Your task to perform on an android device: Clear all items from cart on target. Search for energizer triple a on target, select the first entry, and add it to the cart. Image 0: 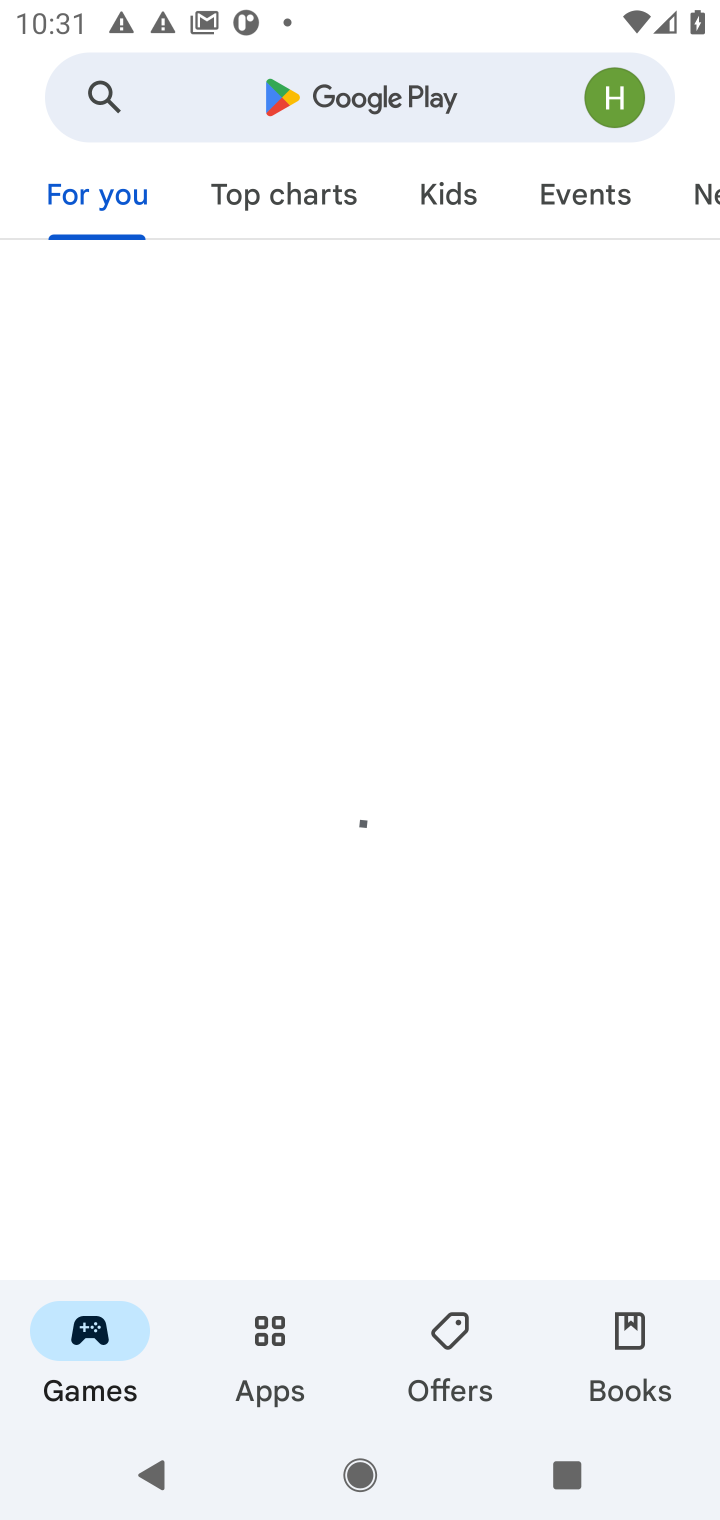
Step 0: press home button
Your task to perform on an android device: Clear all items from cart on target. Search for energizer triple a on target, select the first entry, and add it to the cart. Image 1: 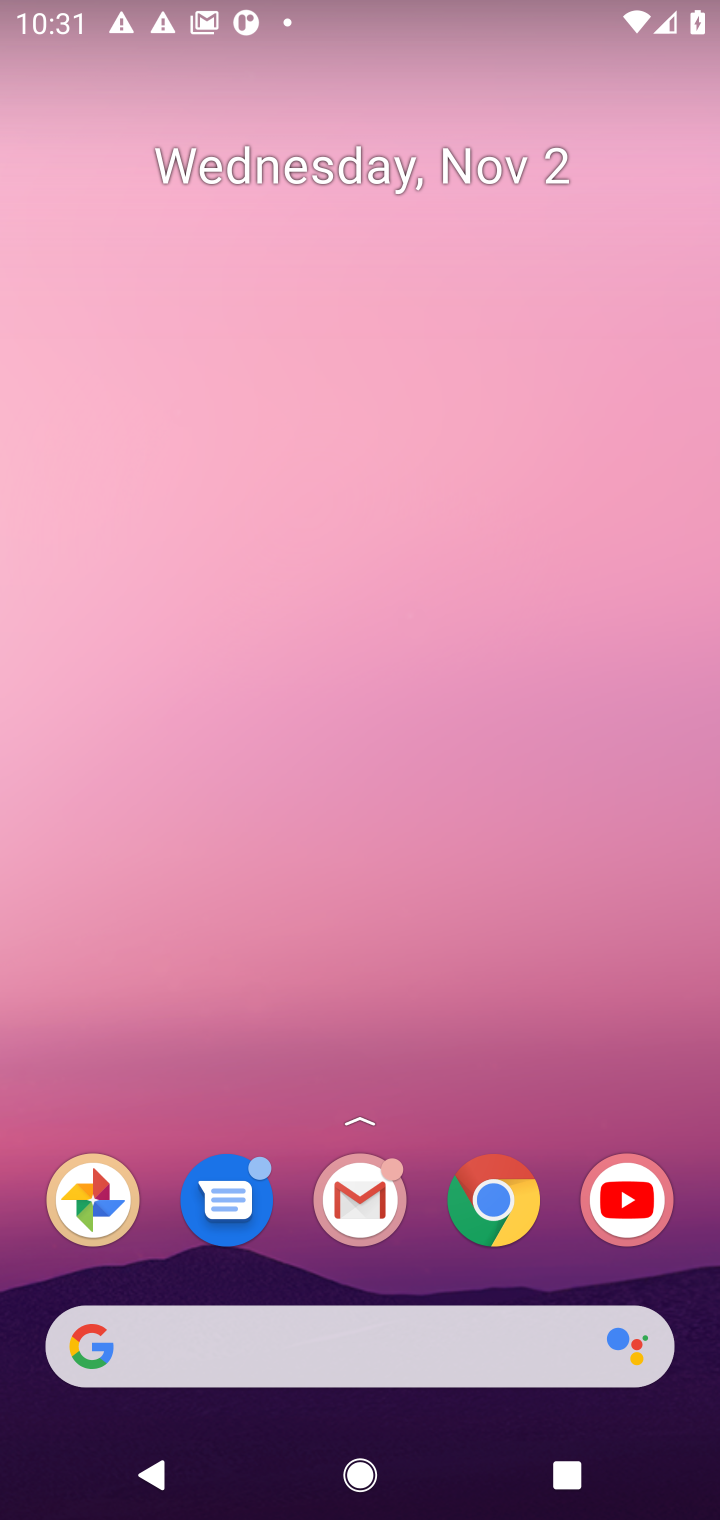
Step 1: click (499, 1193)
Your task to perform on an android device: Clear all items from cart on target. Search for energizer triple a on target, select the first entry, and add it to the cart. Image 2: 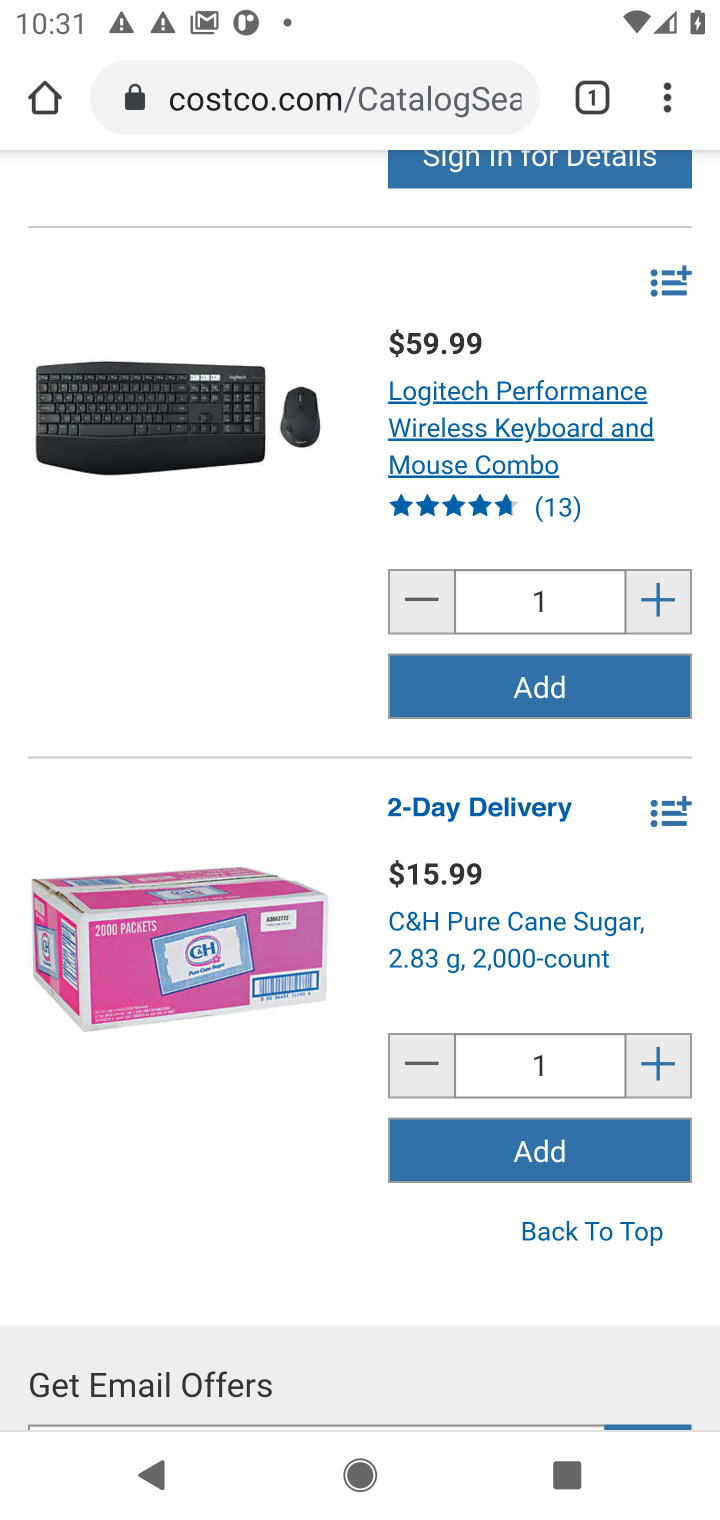
Step 2: click (383, 110)
Your task to perform on an android device: Clear all items from cart on target. Search for energizer triple a on target, select the first entry, and add it to the cart. Image 3: 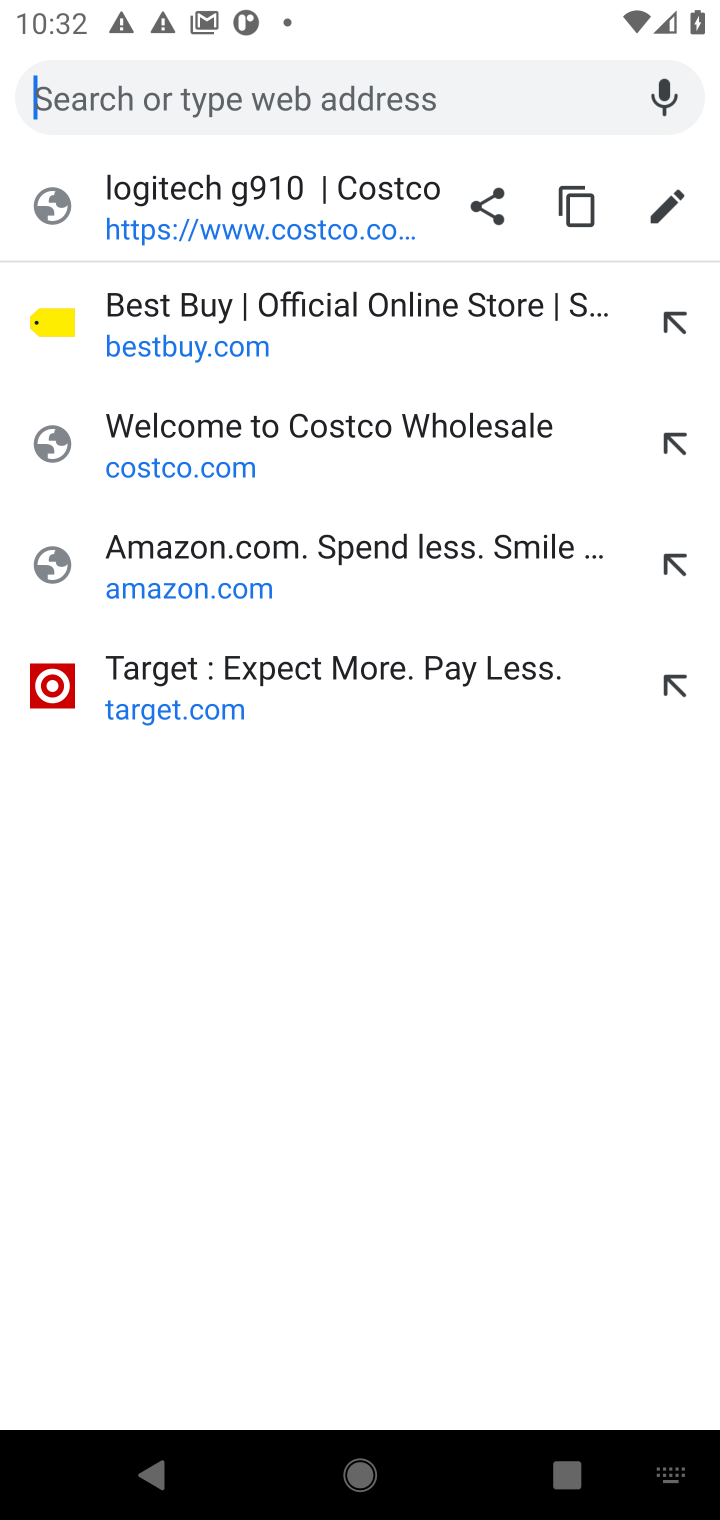
Step 3: click (310, 665)
Your task to perform on an android device: Clear all items from cart on target. Search for energizer triple a on target, select the first entry, and add it to the cart. Image 4: 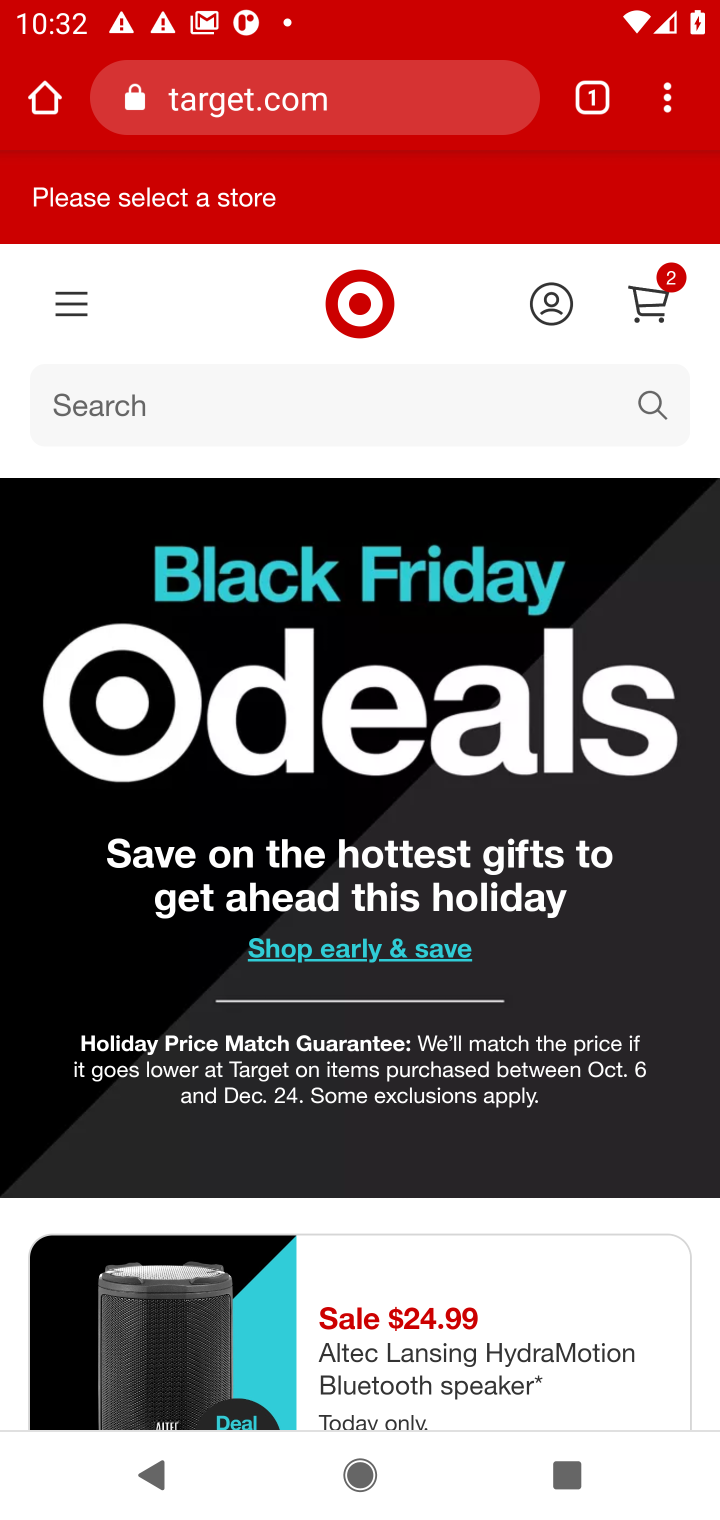
Step 4: click (649, 309)
Your task to perform on an android device: Clear all items from cart on target. Search for energizer triple a on target, select the first entry, and add it to the cart. Image 5: 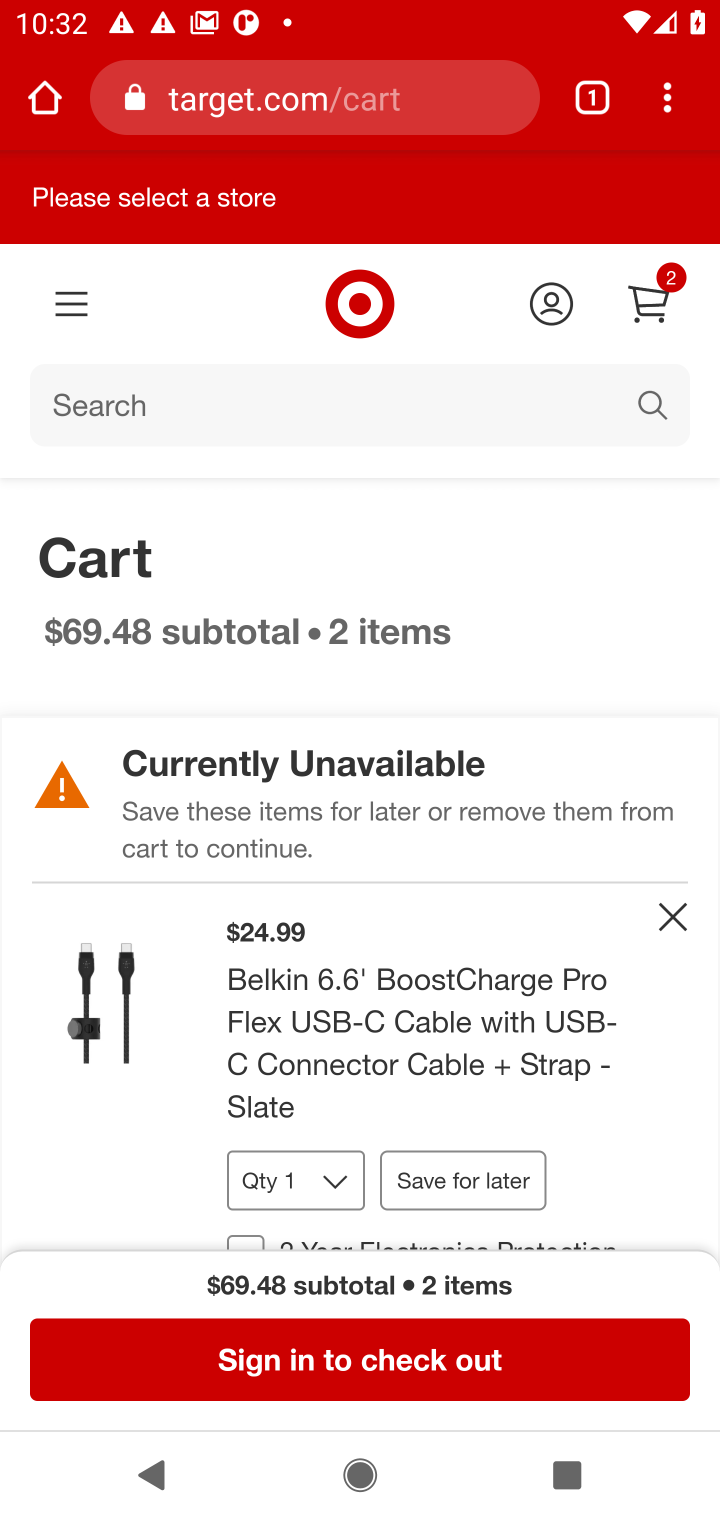
Step 5: drag from (550, 1027) to (605, 413)
Your task to perform on an android device: Clear all items from cart on target. Search for energizer triple a on target, select the first entry, and add it to the cart. Image 6: 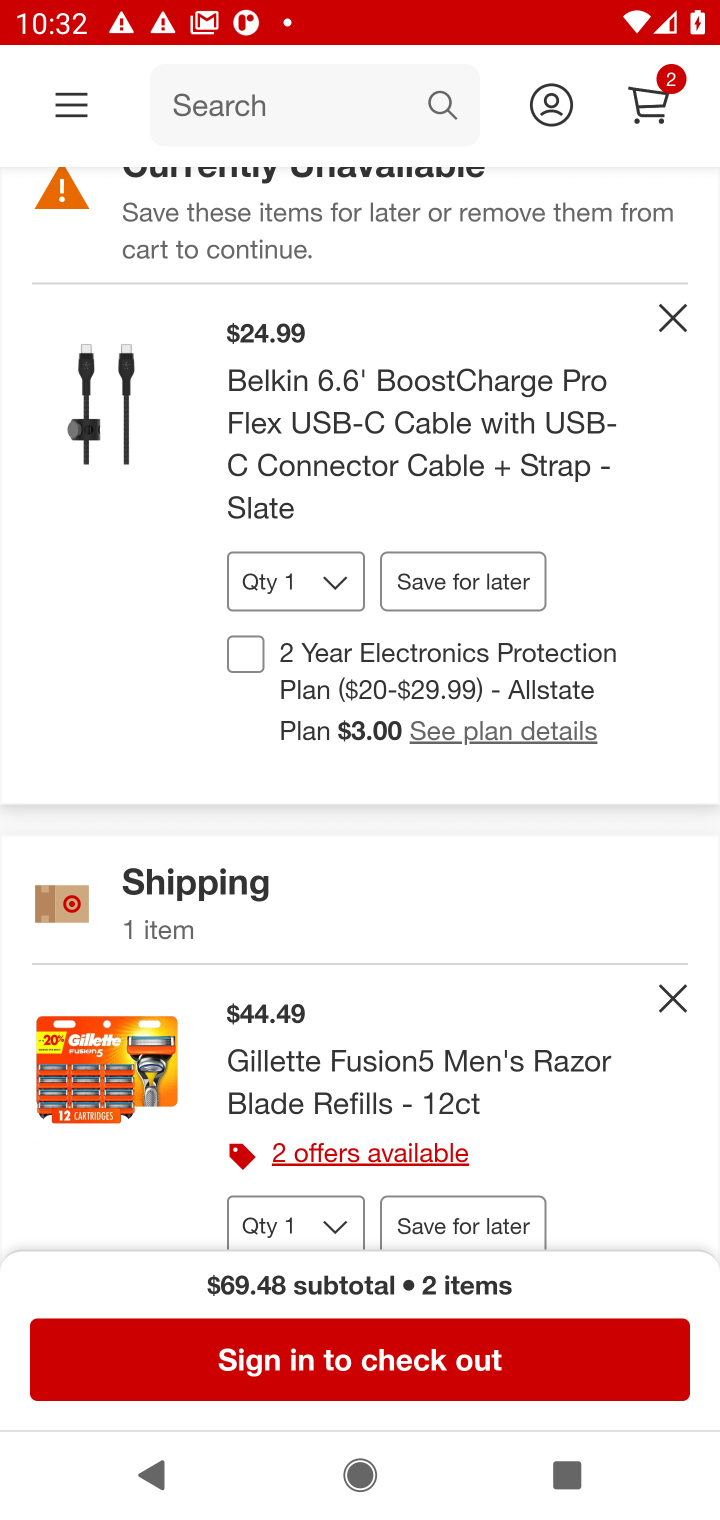
Step 6: click (662, 319)
Your task to perform on an android device: Clear all items from cart on target. Search for energizer triple a on target, select the first entry, and add it to the cart. Image 7: 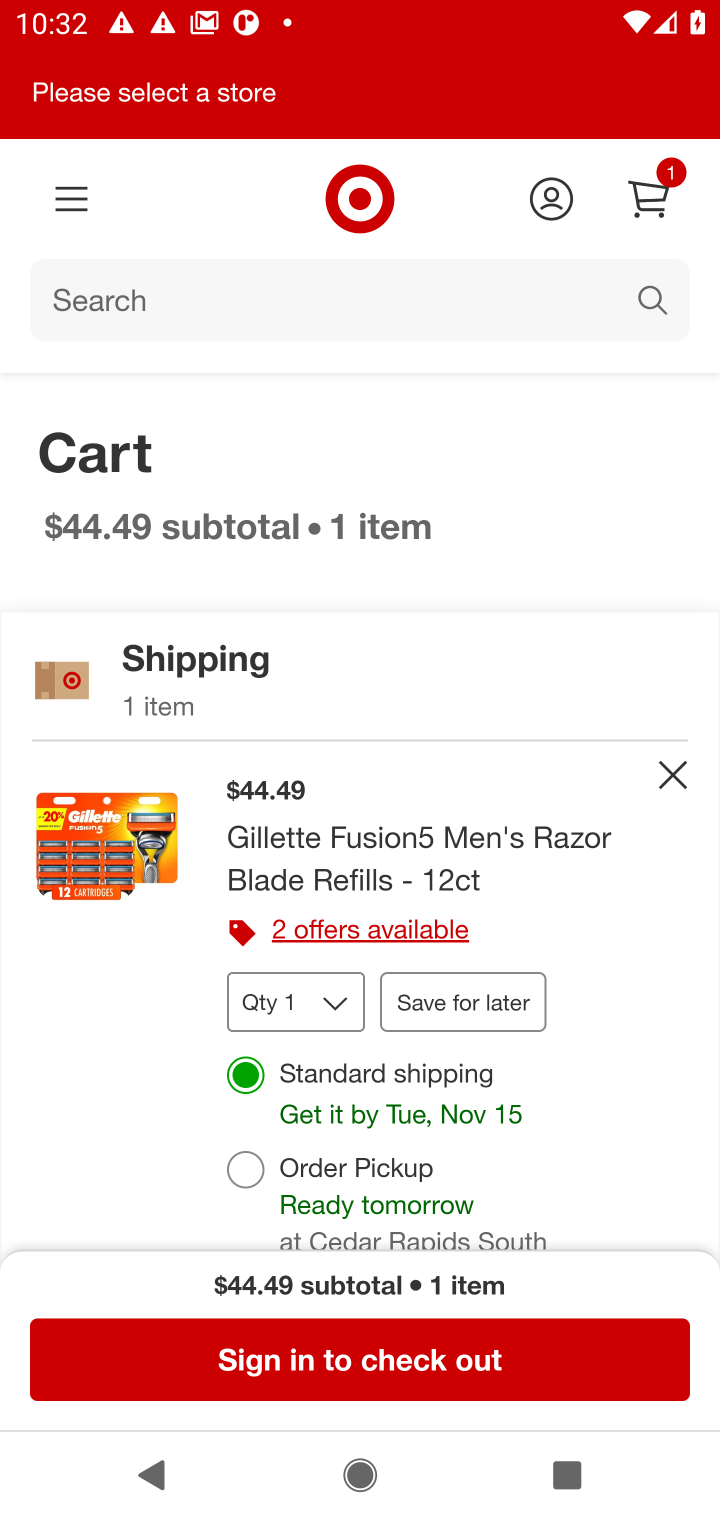
Step 7: click (668, 775)
Your task to perform on an android device: Clear all items from cart on target. Search for energizer triple a on target, select the first entry, and add it to the cart. Image 8: 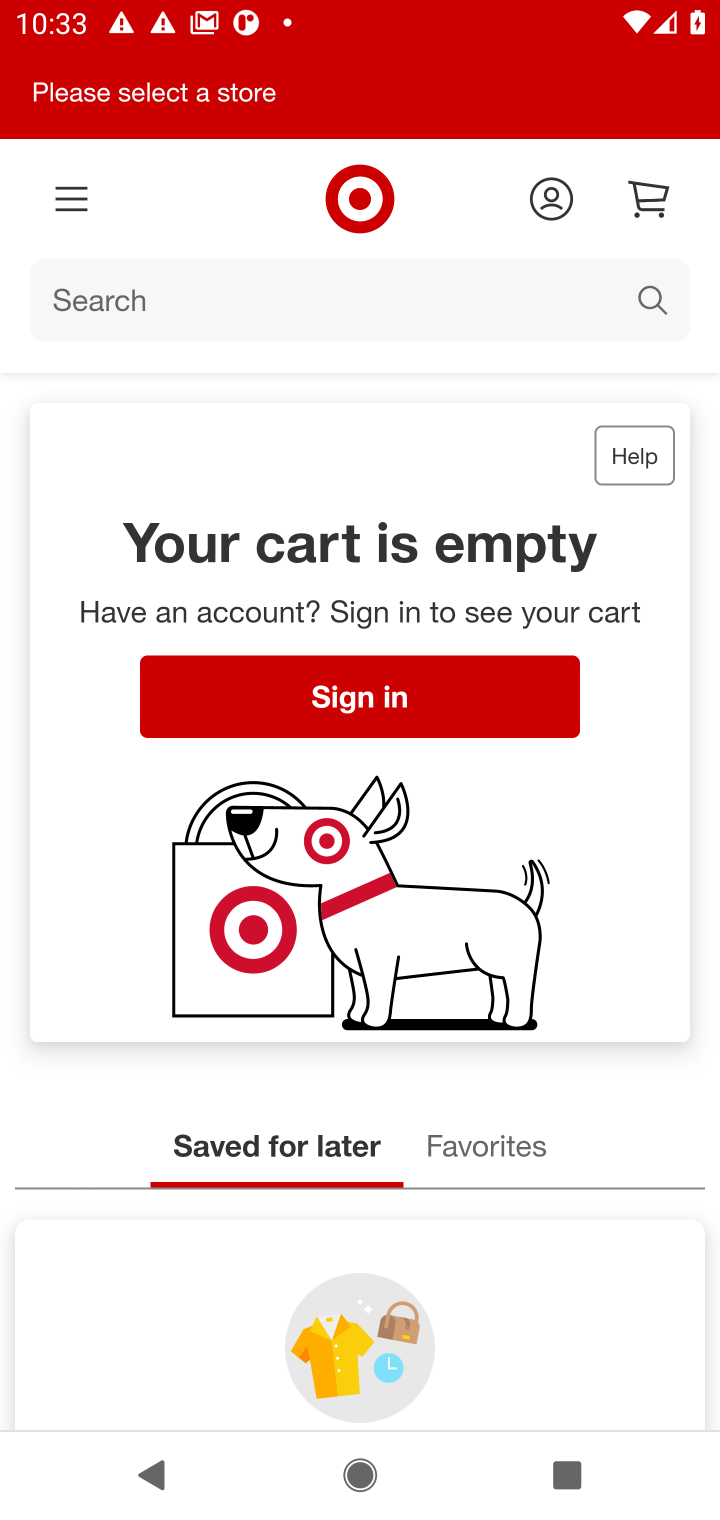
Step 8: click (653, 296)
Your task to perform on an android device: Clear all items from cart on target. Search for energizer triple a on target, select the first entry, and add it to the cart. Image 9: 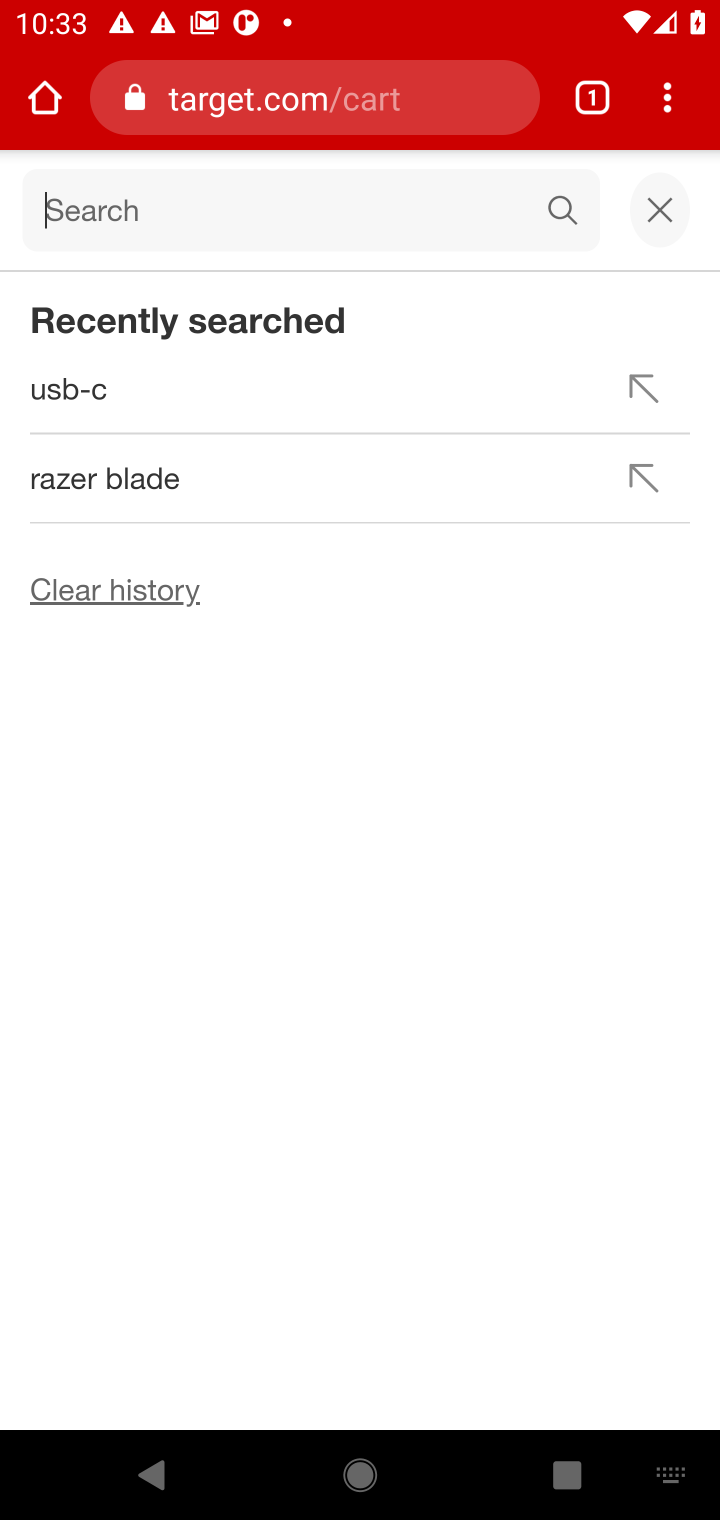
Step 9: type "energizer triple a "
Your task to perform on an android device: Clear all items from cart on target. Search for energizer triple a on target, select the first entry, and add it to the cart. Image 10: 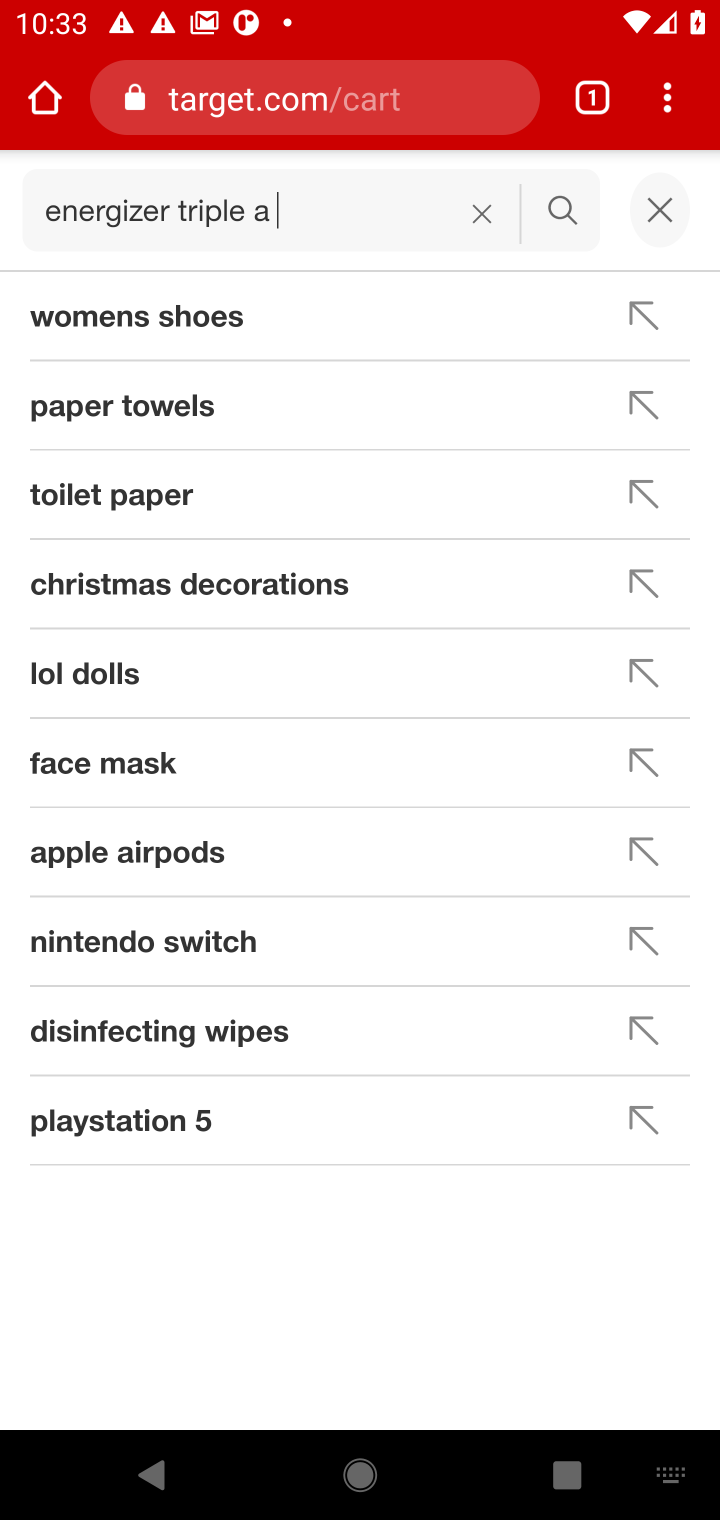
Step 10: press enter
Your task to perform on an android device: Clear all items from cart on target. Search for energizer triple a on target, select the first entry, and add it to the cart. Image 11: 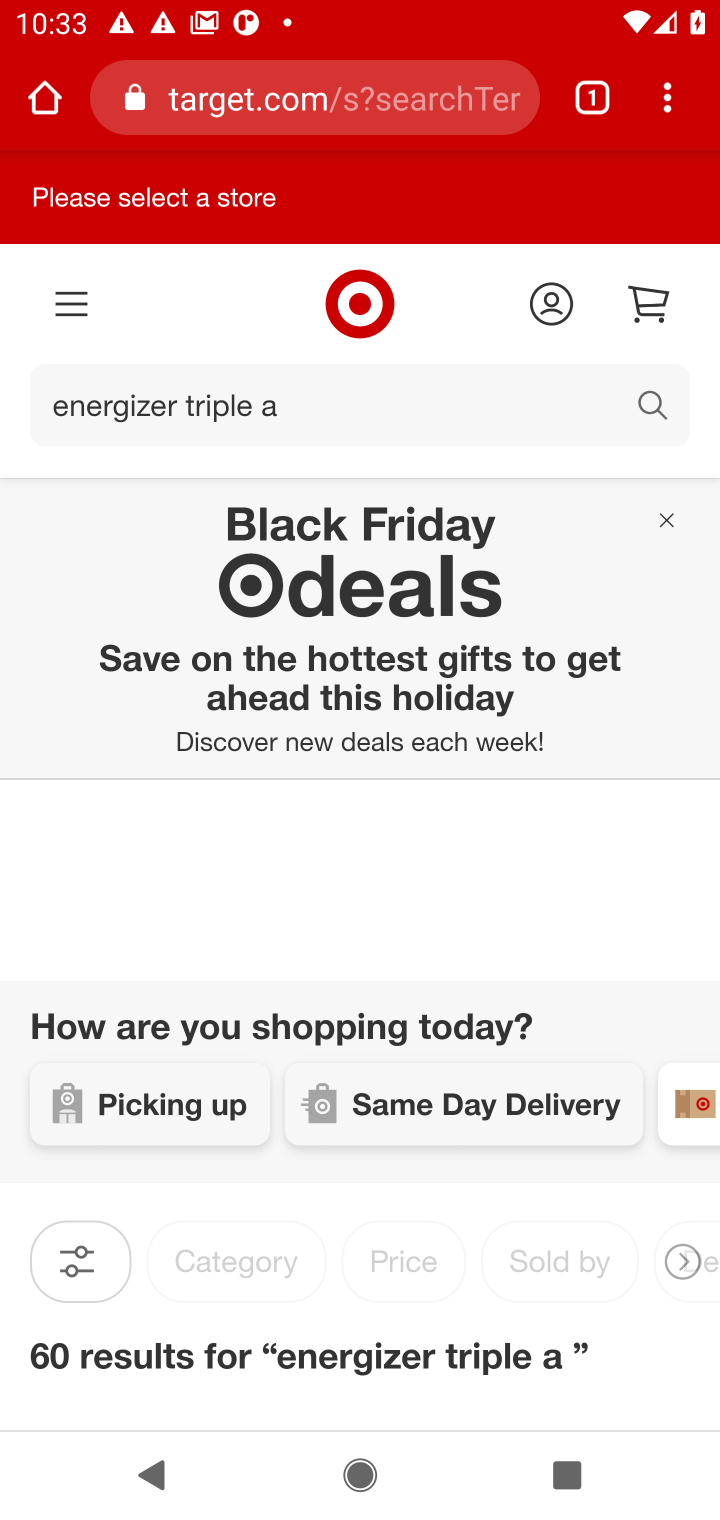
Step 11: drag from (454, 1149) to (527, 515)
Your task to perform on an android device: Clear all items from cart on target. Search for energizer triple a on target, select the first entry, and add it to the cart. Image 12: 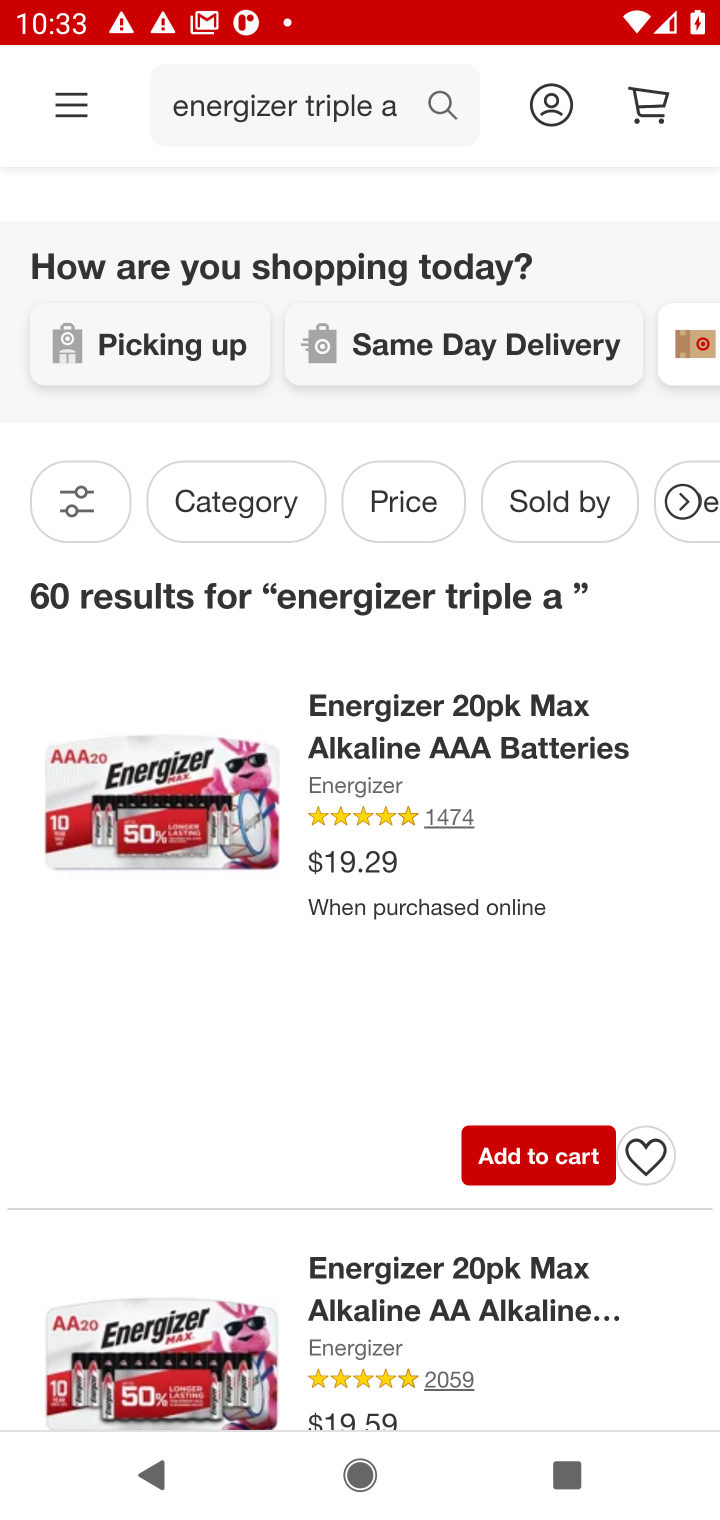
Step 12: drag from (456, 871) to (481, 516)
Your task to perform on an android device: Clear all items from cart on target. Search for energizer triple a on target, select the first entry, and add it to the cart. Image 13: 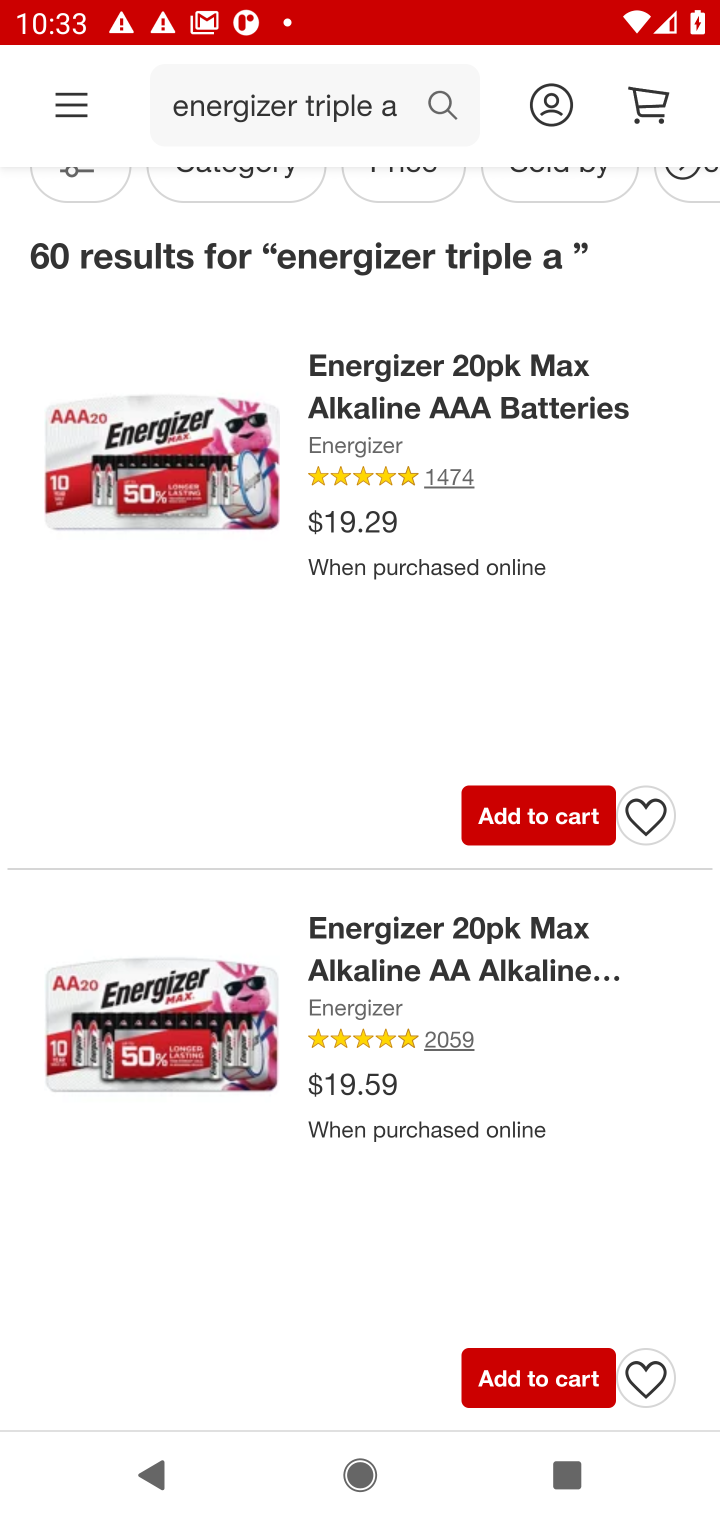
Step 13: click (163, 445)
Your task to perform on an android device: Clear all items from cart on target. Search for energizer triple a on target, select the first entry, and add it to the cart. Image 14: 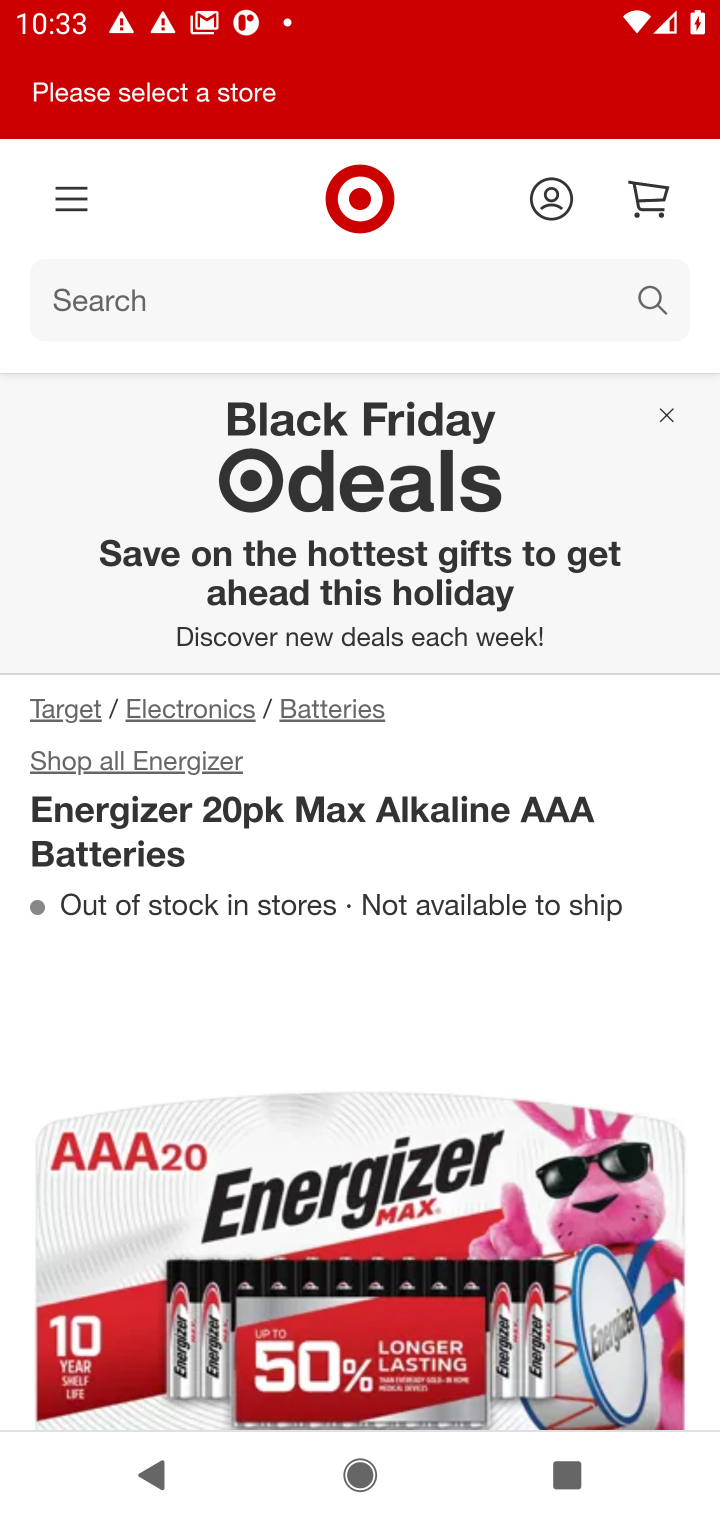
Step 14: drag from (512, 1228) to (465, 542)
Your task to perform on an android device: Clear all items from cart on target. Search for energizer triple a on target, select the first entry, and add it to the cart. Image 15: 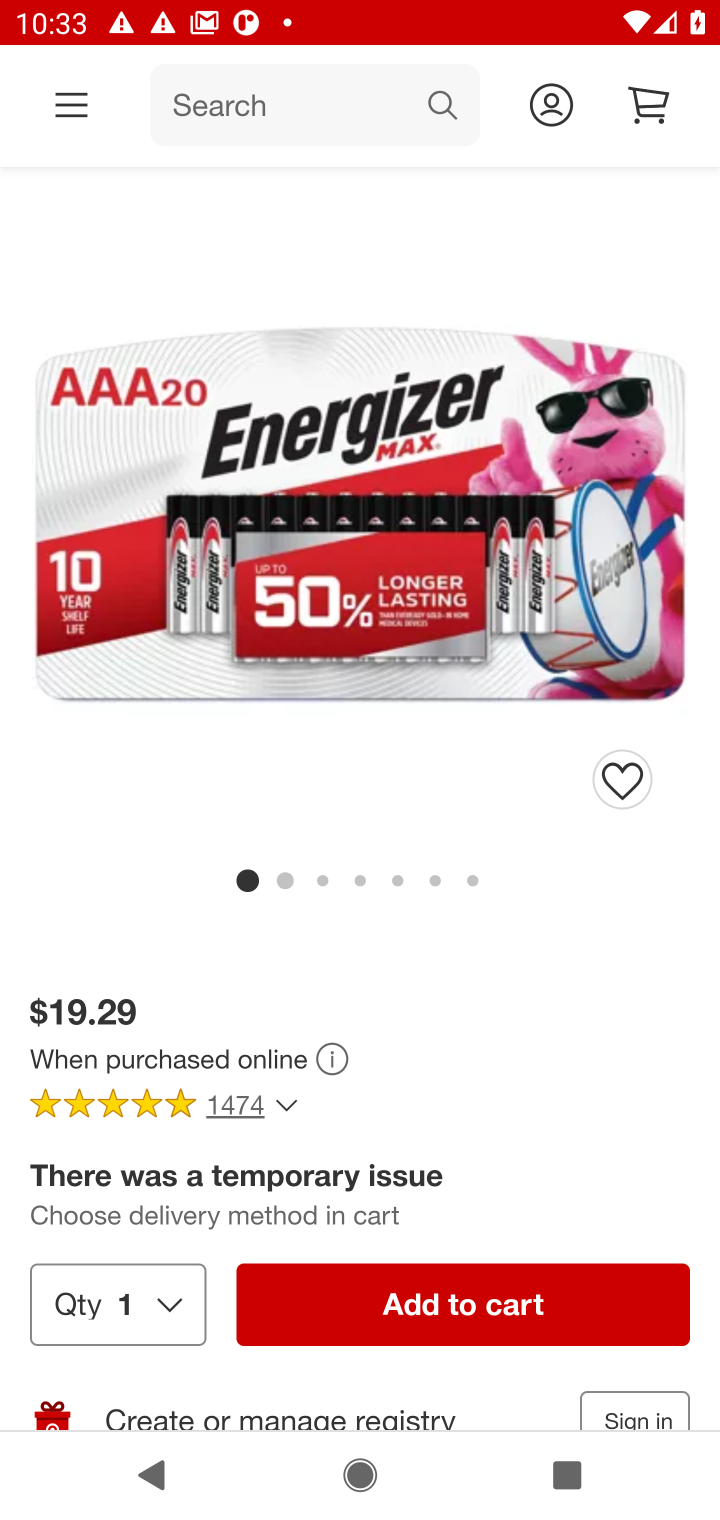
Step 15: click (537, 1308)
Your task to perform on an android device: Clear all items from cart on target. Search for energizer triple a on target, select the first entry, and add it to the cart. Image 16: 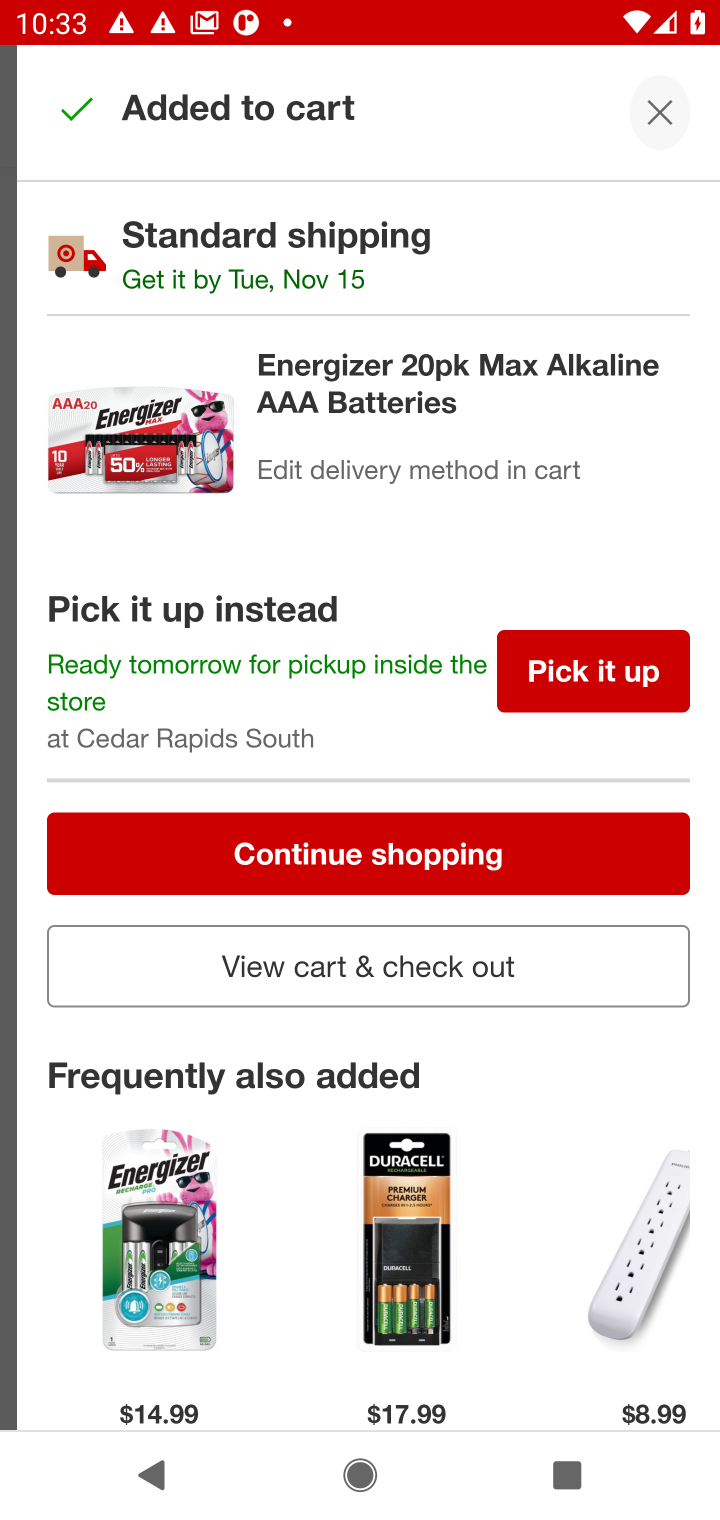
Step 16: task complete